Your task to perform on an android device: install app "Calculator" Image 0: 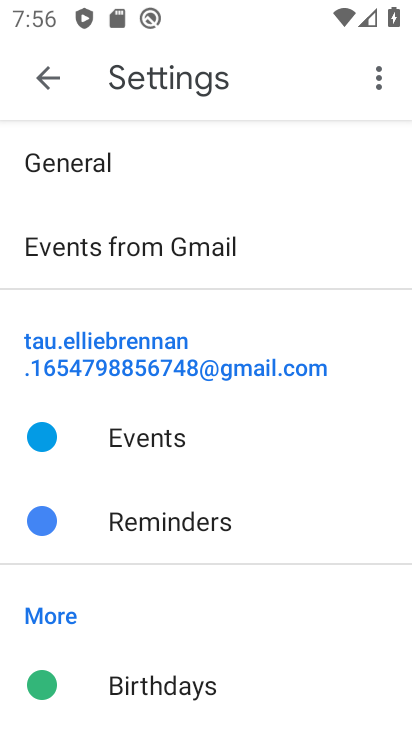
Step 0: press home button
Your task to perform on an android device: install app "Calculator" Image 1: 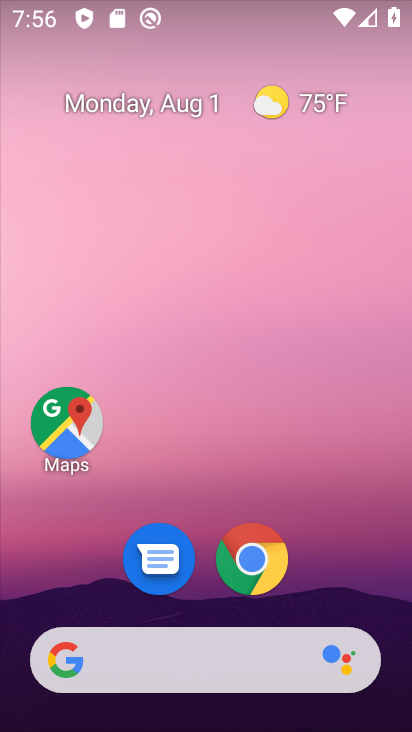
Step 1: drag from (215, 654) to (209, 131)
Your task to perform on an android device: install app "Calculator" Image 2: 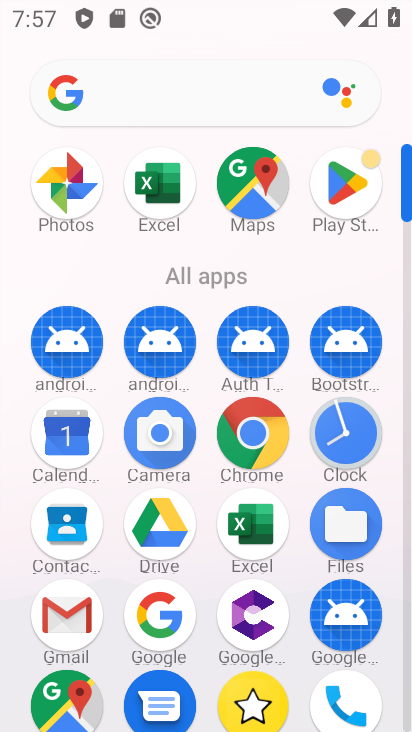
Step 2: click (359, 197)
Your task to perform on an android device: install app "Calculator" Image 3: 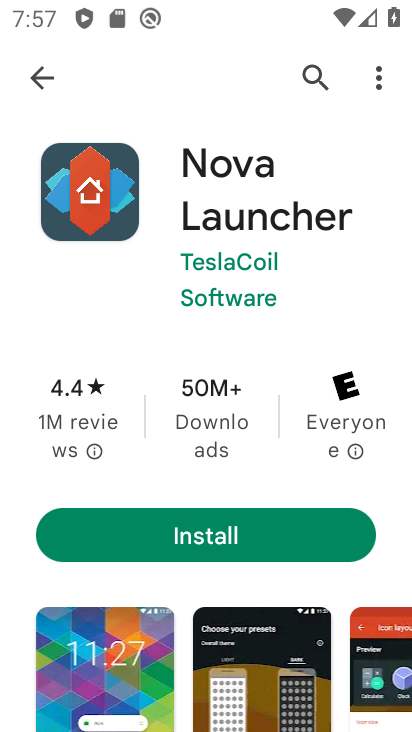
Step 3: click (317, 71)
Your task to perform on an android device: install app "Calculator" Image 4: 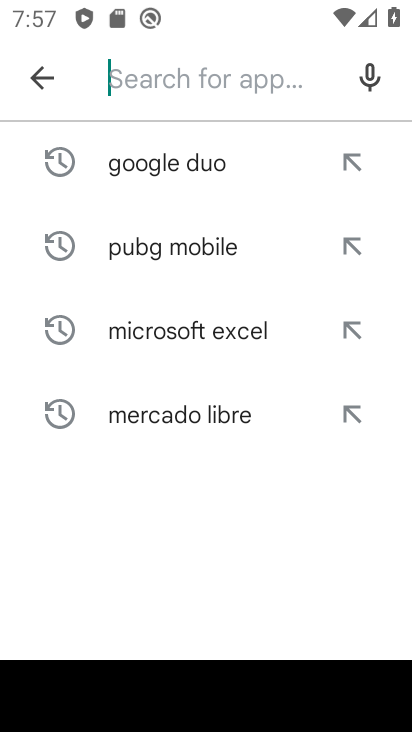
Step 4: type "calculator"
Your task to perform on an android device: install app "Calculator" Image 5: 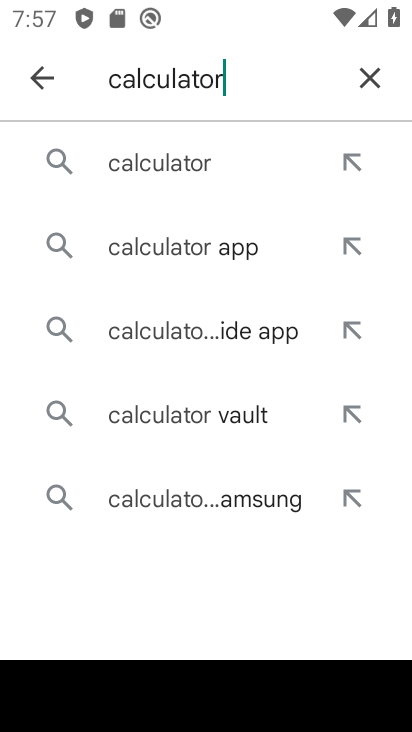
Step 5: click (170, 173)
Your task to perform on an android device: install app "Calculator" Image 6: 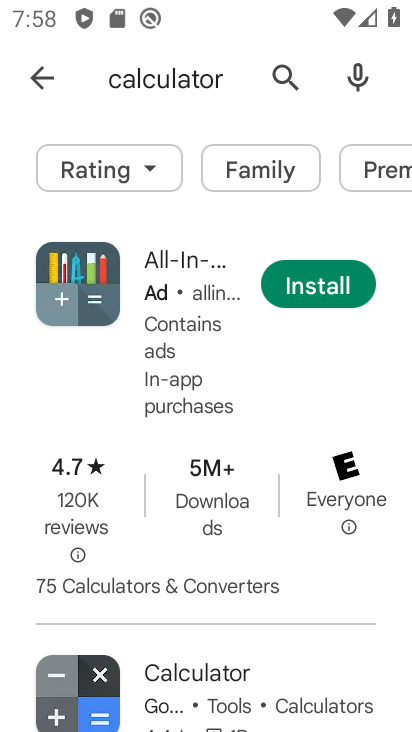
Step 6: task complete